Your task to perform on an android device: Go to eBay Image 0: 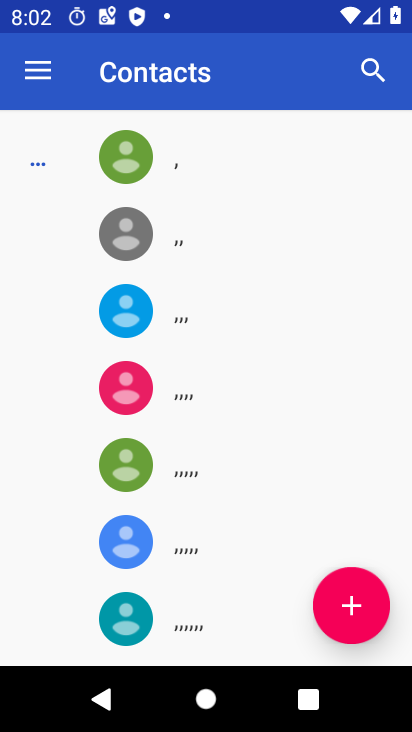
Step 0: press back button
Your task to perform on an android device: Go to eBay Image 1: 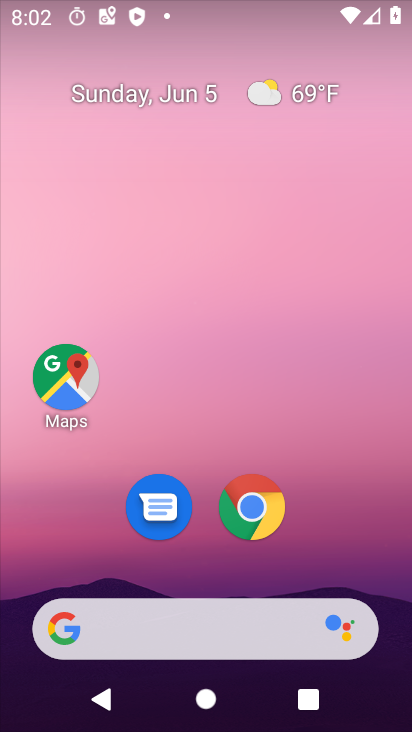
Step 1: drag from (357, 558) to (262, 28)
Your task to perform on an android device: Go to eBay Image 2: 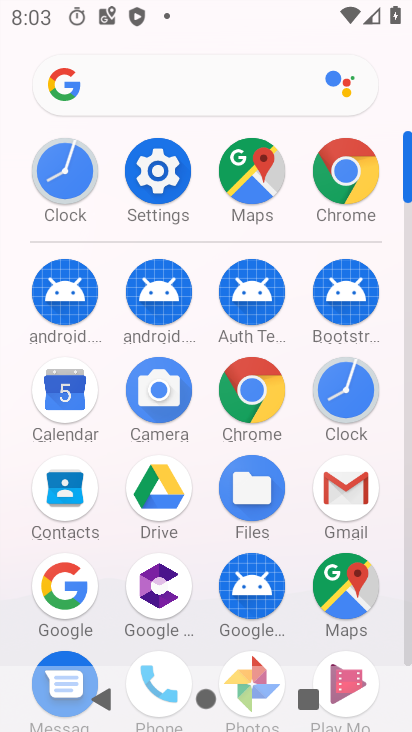
Step 2: click (342, 168)
Your task to perform on an android device: Go to eBay Image 3: 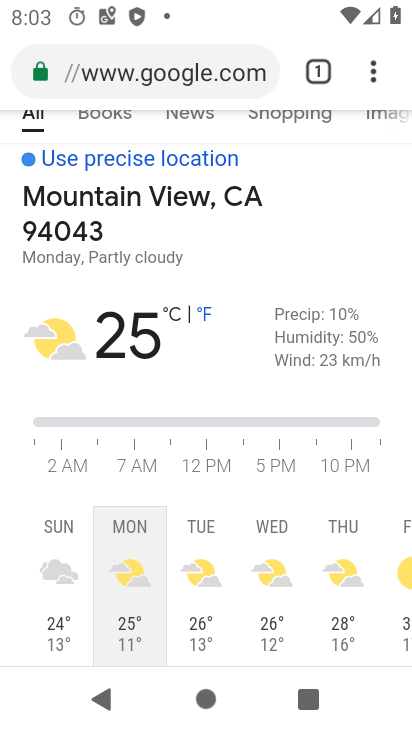
Step 3: click (204, 69)
Your task to perform on an android device: Go to eBay Image 4: 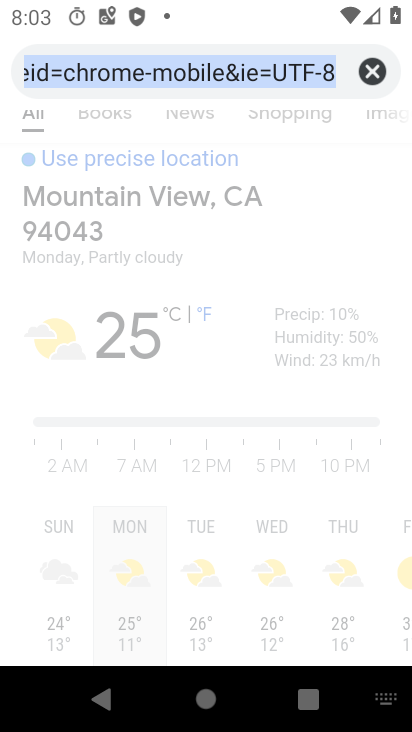
Step 4: click (372, 71)
Your task to perform on an android device: Go to eBay Image 5: 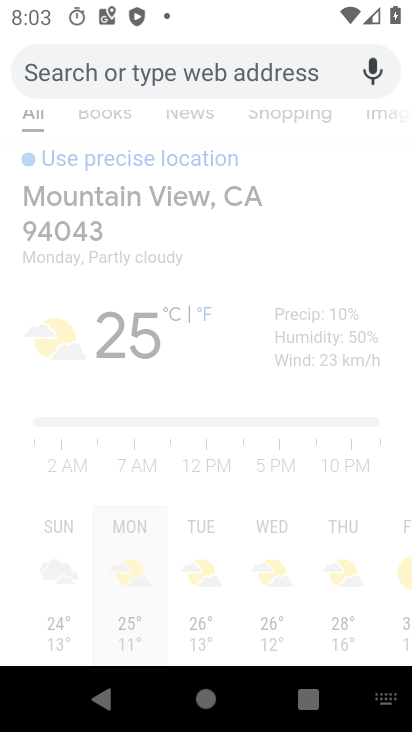
Step 5: type "eBay"
Your task to perform on an android device: Go to eBay Image 6: 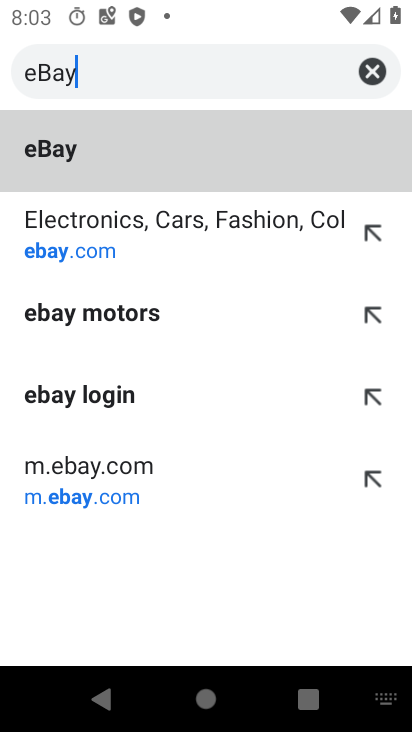
Step 6: type ""
Your task to perform on an android device: Go to eBay Image 7: 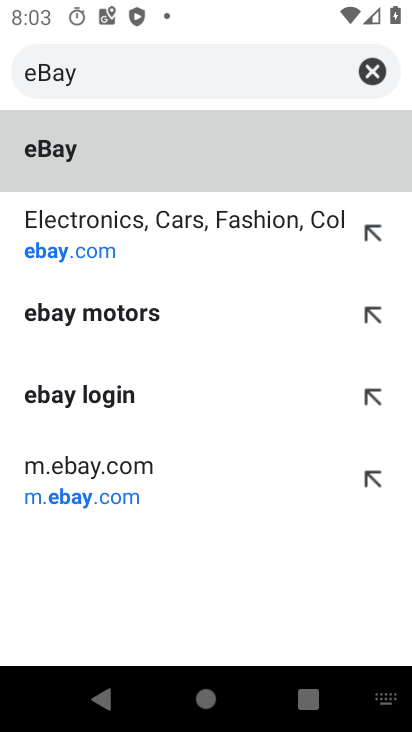
Step 7: click (116, 236)
Your task to perform on an android device: Go to eBay Image 8: 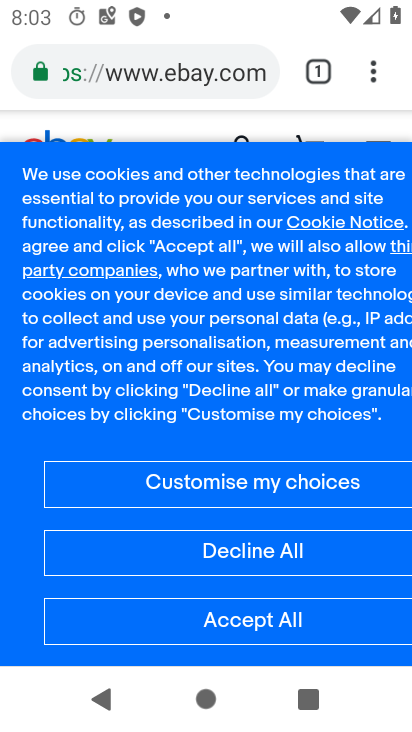
Step 8: click (223, 634)
Your task to perform on an android device: Go to eBay Image 9: 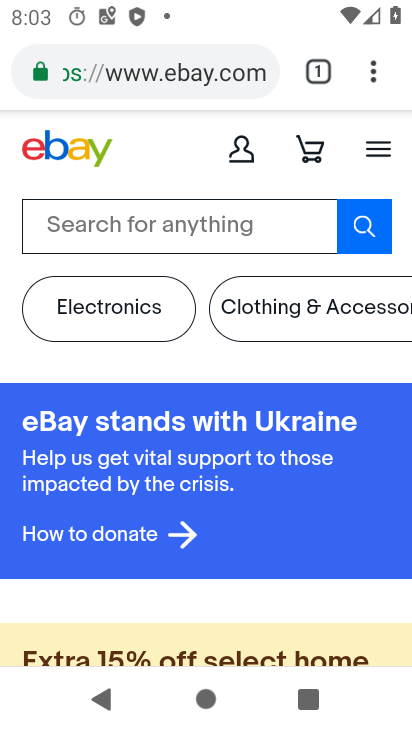
Step 9: task complete